Your task to perform on an android device: Search for macbook on walmart, select the first entry, and add it to the cart. Image 0: 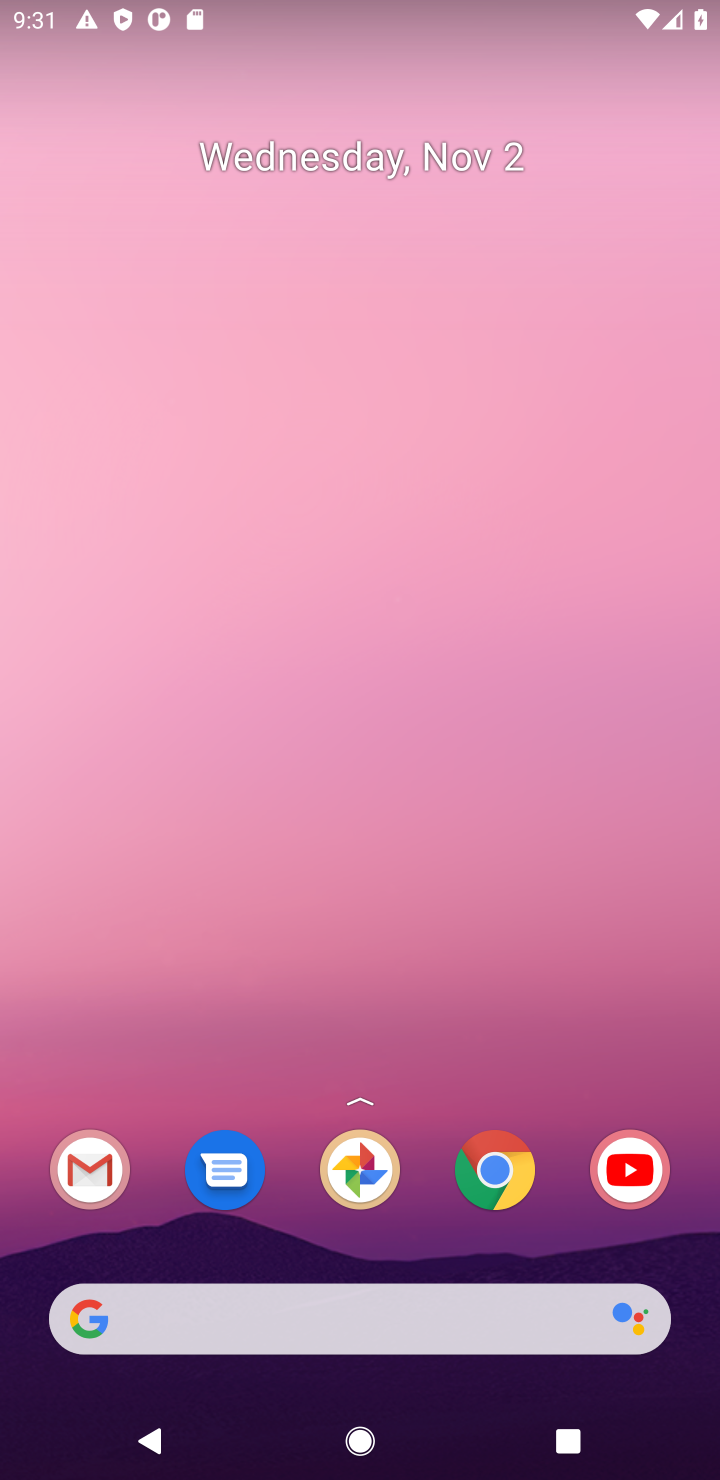
Step 0: click (511, 1170)
Your task to perform on an android device: Search for macbook on walmart, select the first entry, and add it to the cart. Image 1: 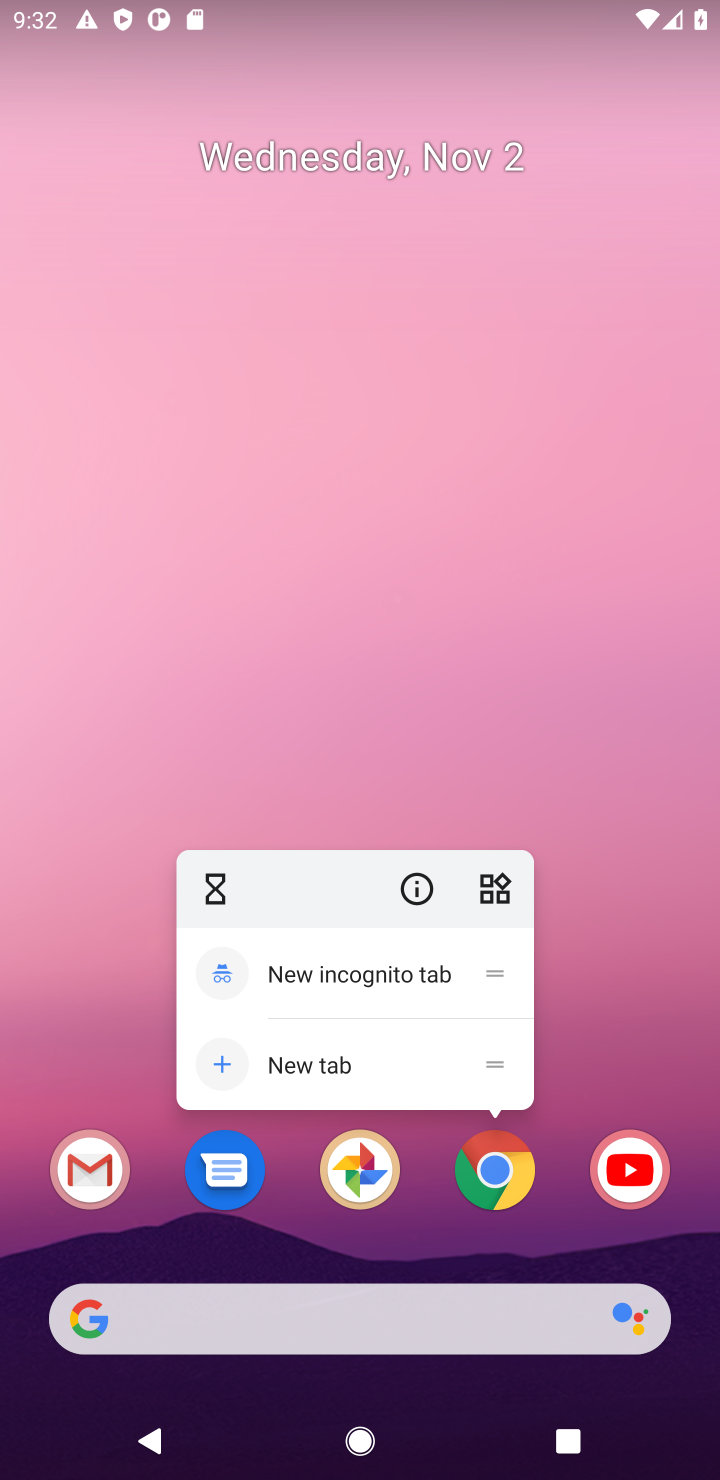
Step 1: click (485, 1189)
Your task to perform on an android device: Search for macbook on walmart, select the first entry, and add it to the cart. Image 2: 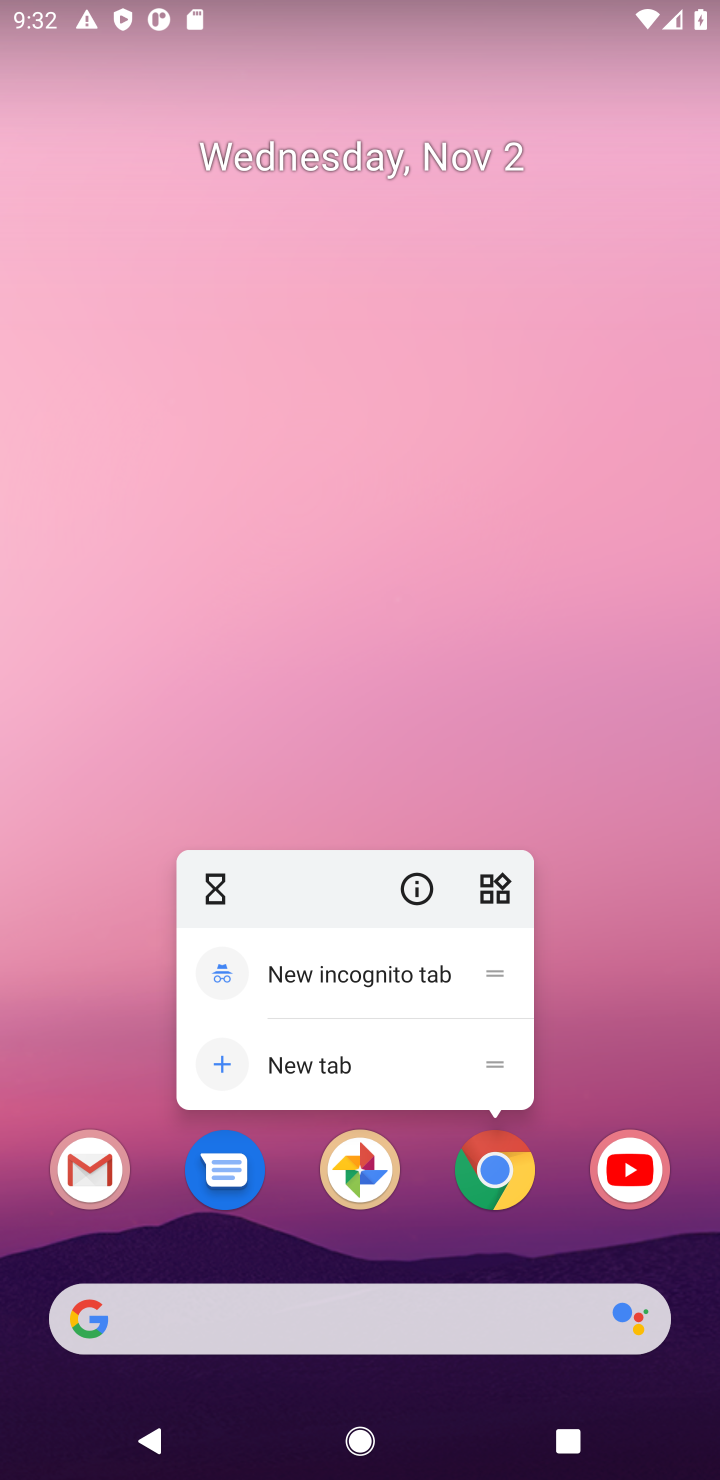
Step 2: click (499, 1180)
Your task to perform on an android device: Search for macbook on walmart, select the first entry, and add it to the cart. Image 3: 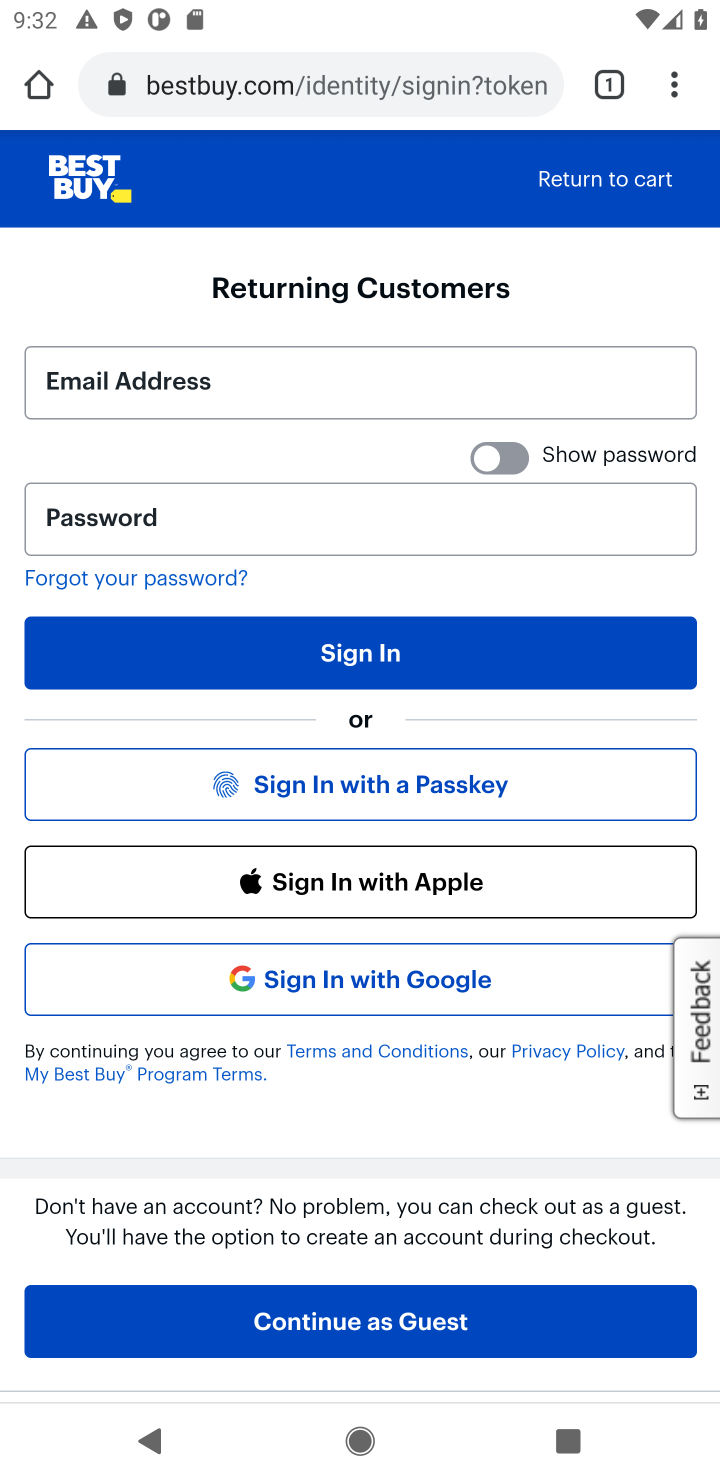
Step 3: click (417, 90)
Your task to perform on an android device: Search for macbook on walmart, select the first entry, and add it to the cart. Image 4: 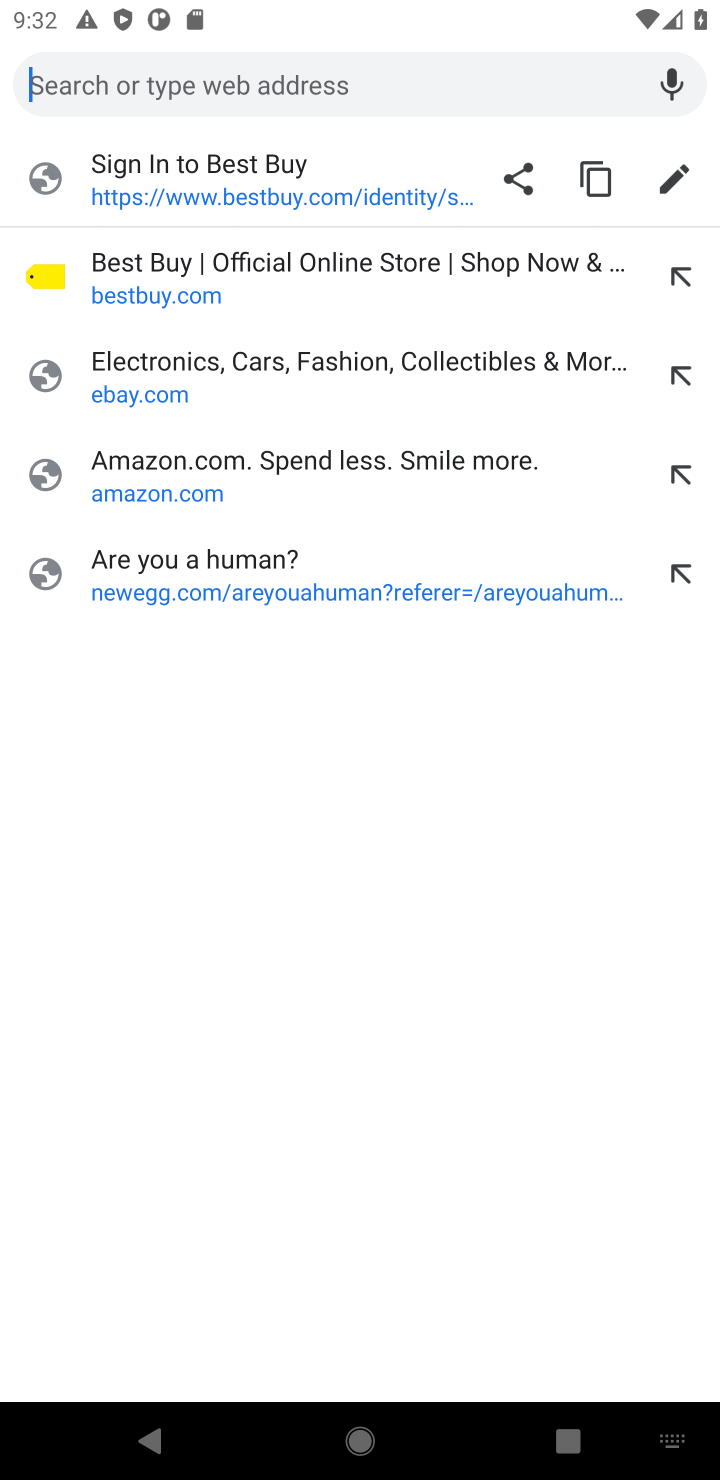
Step 4: type "walmart"
Your task to perform on an android device: Search for macbook on walmart, select the first entry, and add it to the cart. Image 5: 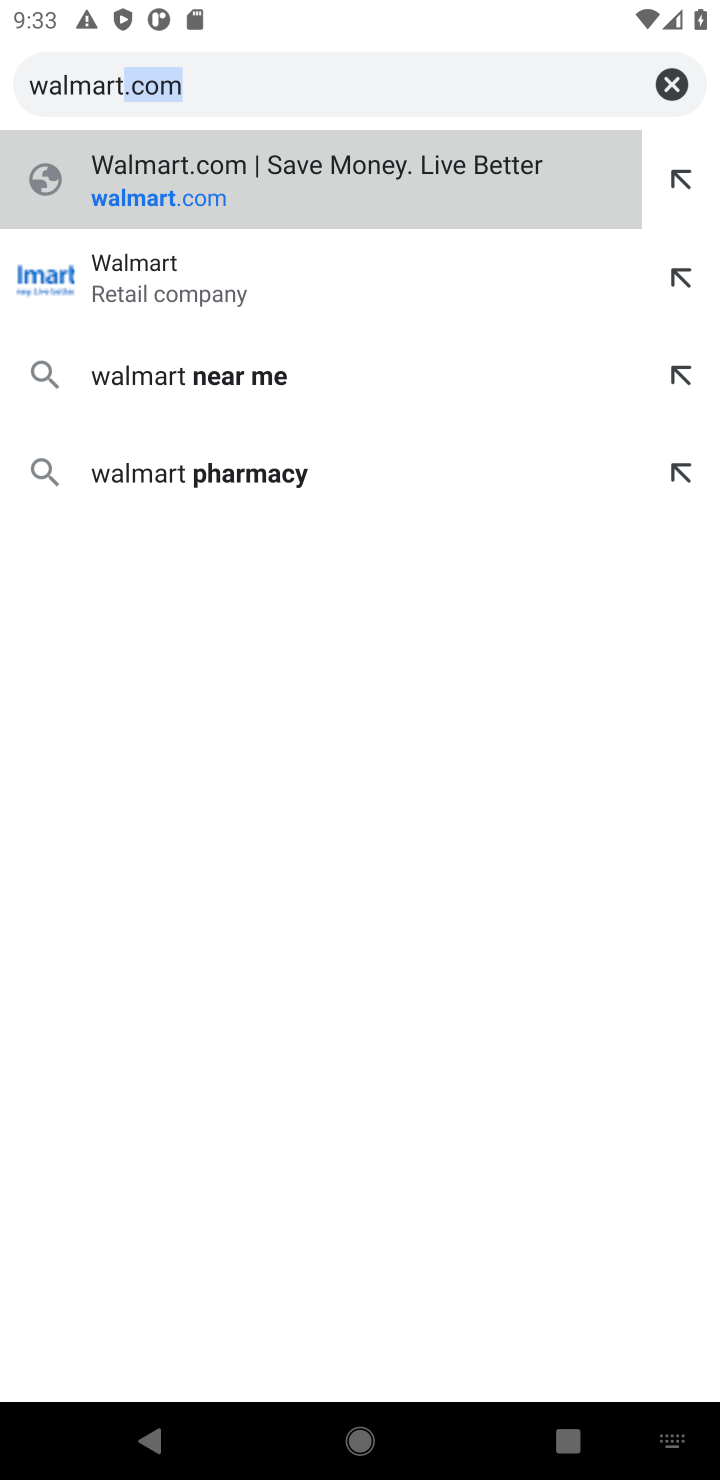
Step 5: press enter
Your task to perform on an android device: Search for macbook on walmart, select the first entry, and add it to the cart. Image 6: 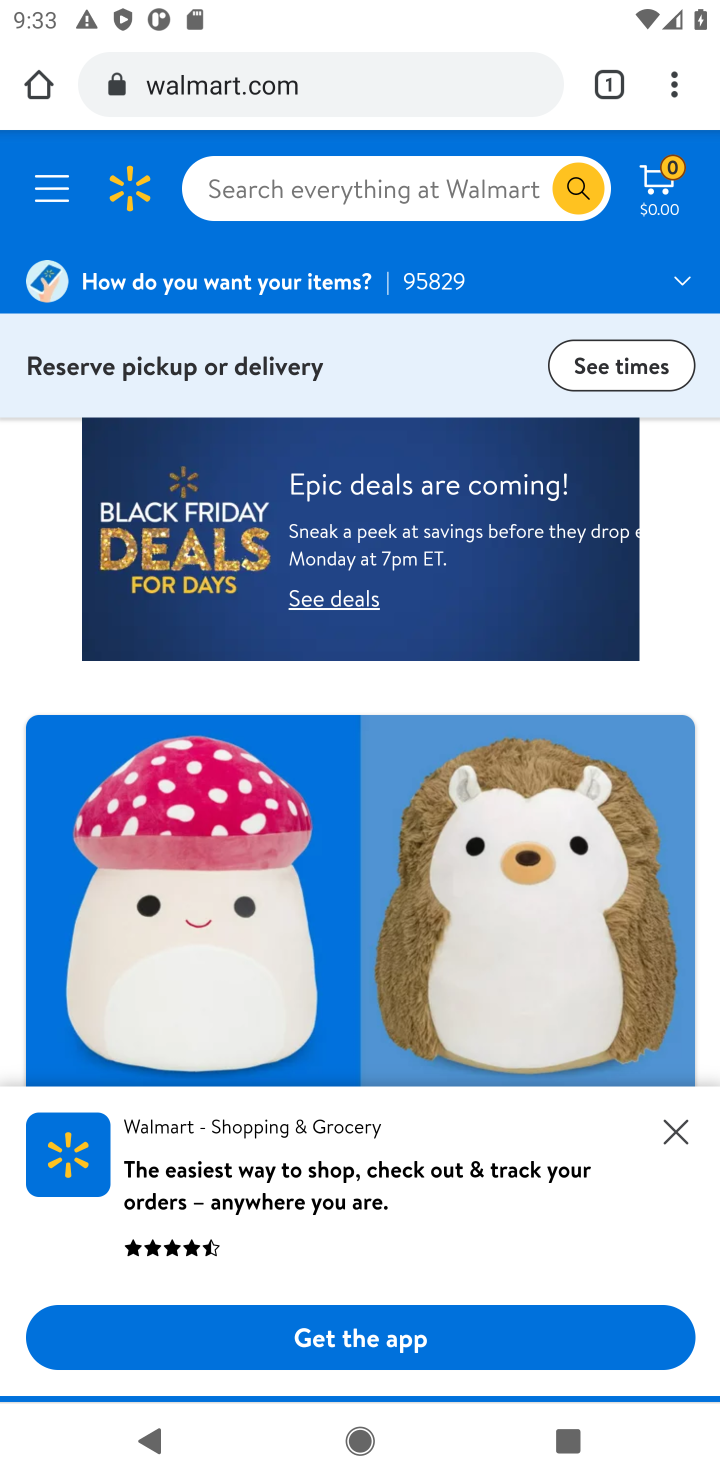
Step 6: click (342, 170)
Your task to perform on an android device: Search for macbook on walmart, select the first entry, and add it to the cart. Image 7: 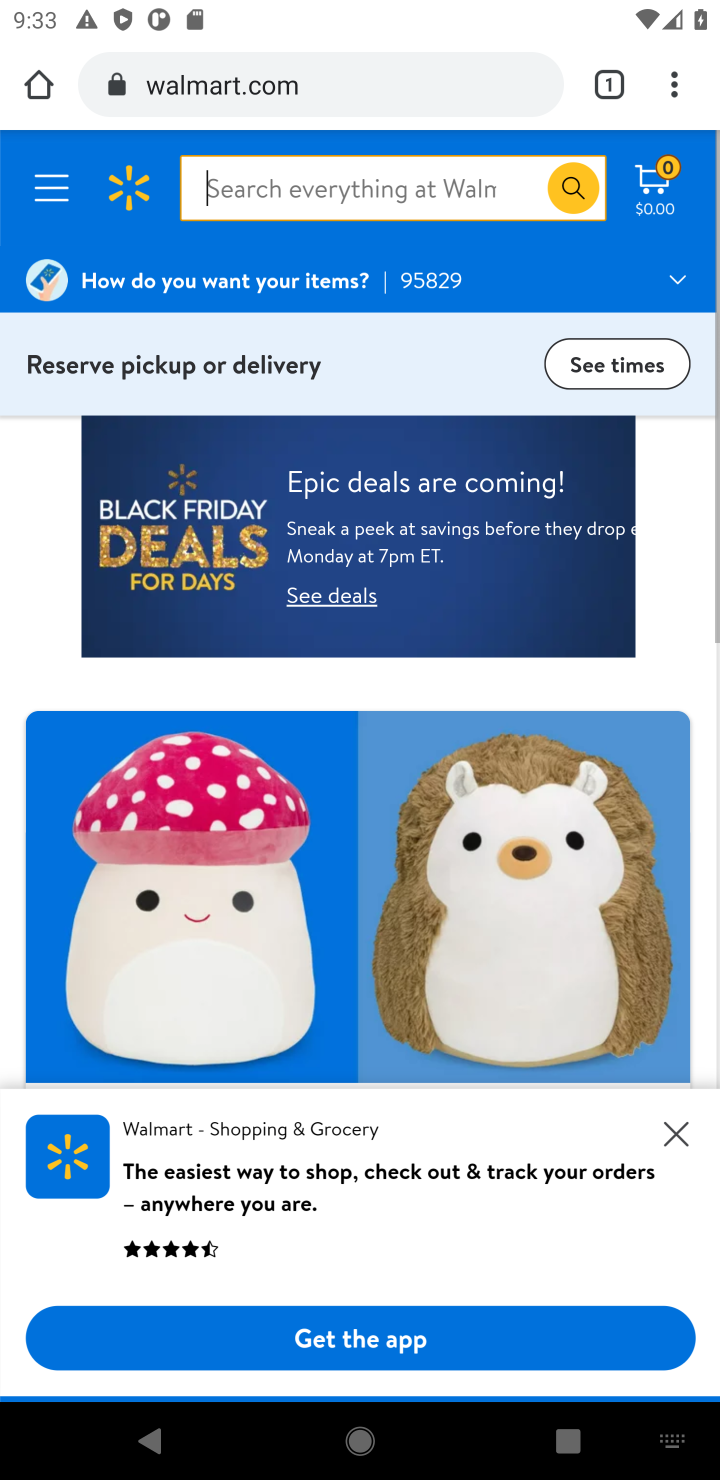
Step 7: click (386, 190)
Your task to perform on an android device: Search for macbook on walmart, select the first entry, and add it to the cart. Image 8: 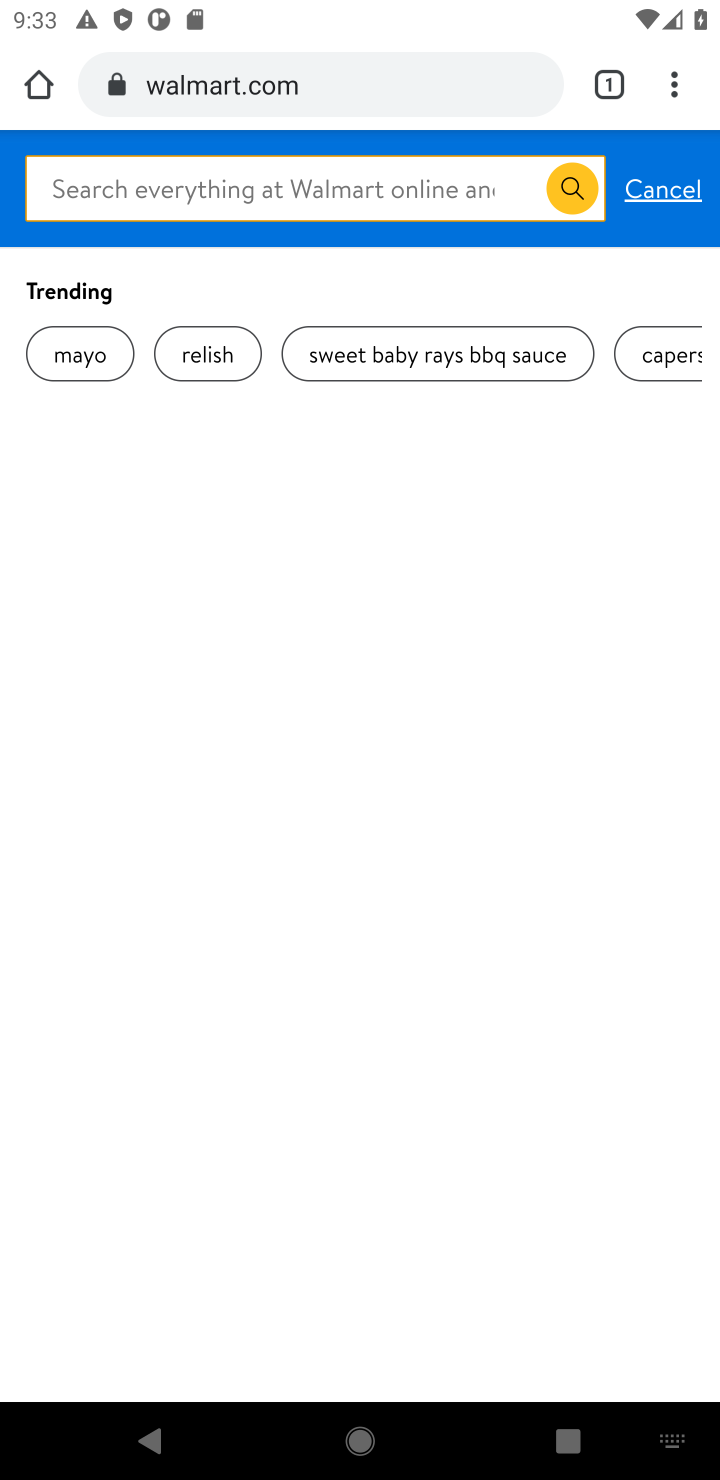
Step 8: type "macbook"
Your task to perform on an android device: Search for macbook on walmart, select the first entry, and add it to the cart. Image 9: 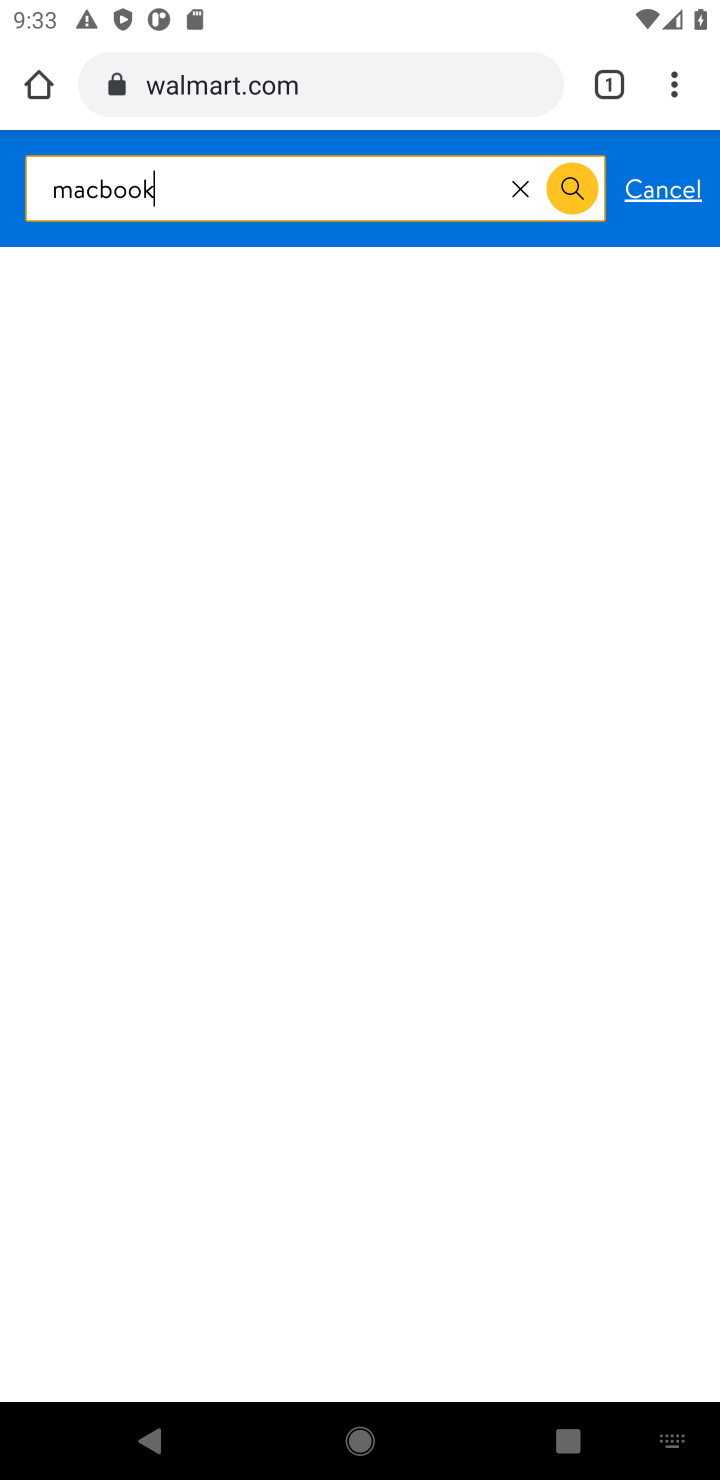
Step 9: type ""
Your task to perform on an android device: Search for macbook on walmart, select the first entry, and add it to the cart. Image 10: 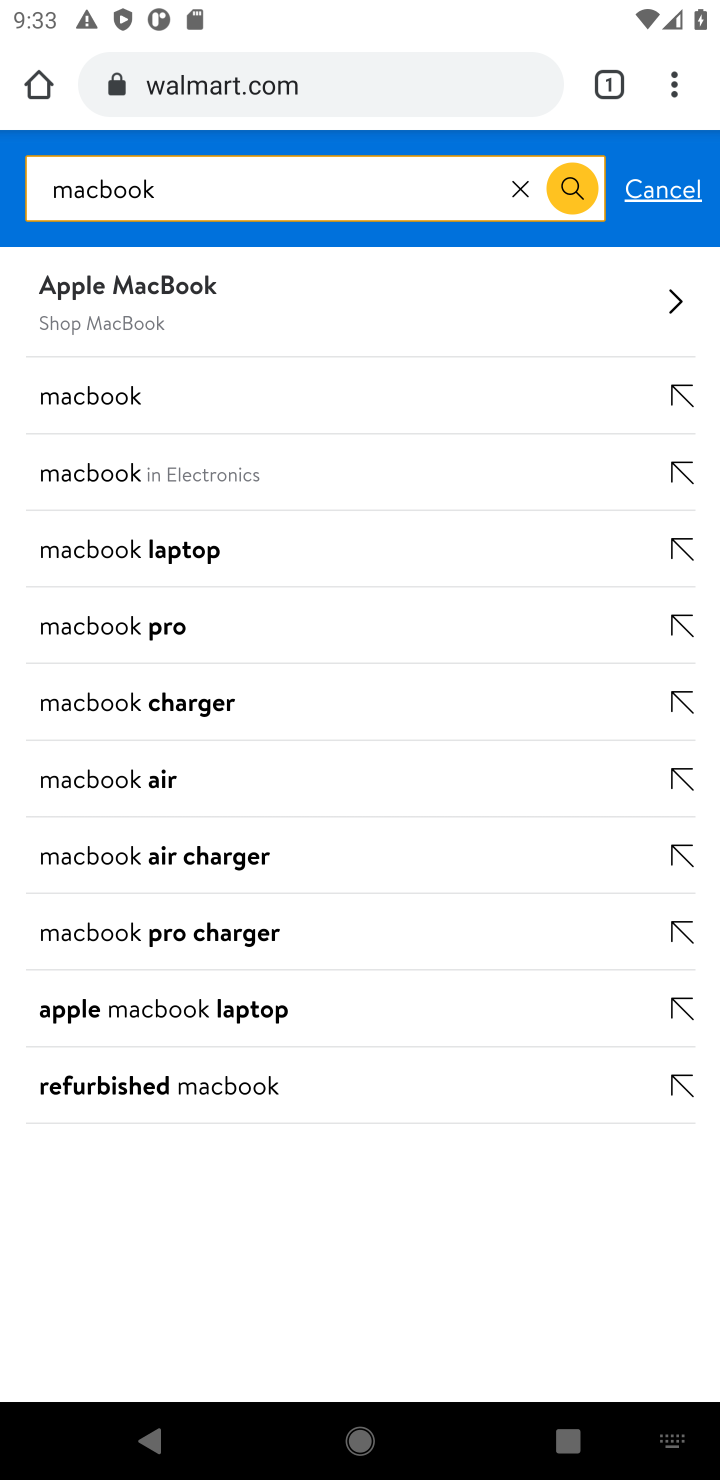
Step 10: press enter
Your task to perform on an android device: Search for macbook on walmart, select the first entry, and add it to the cart. Image 11: 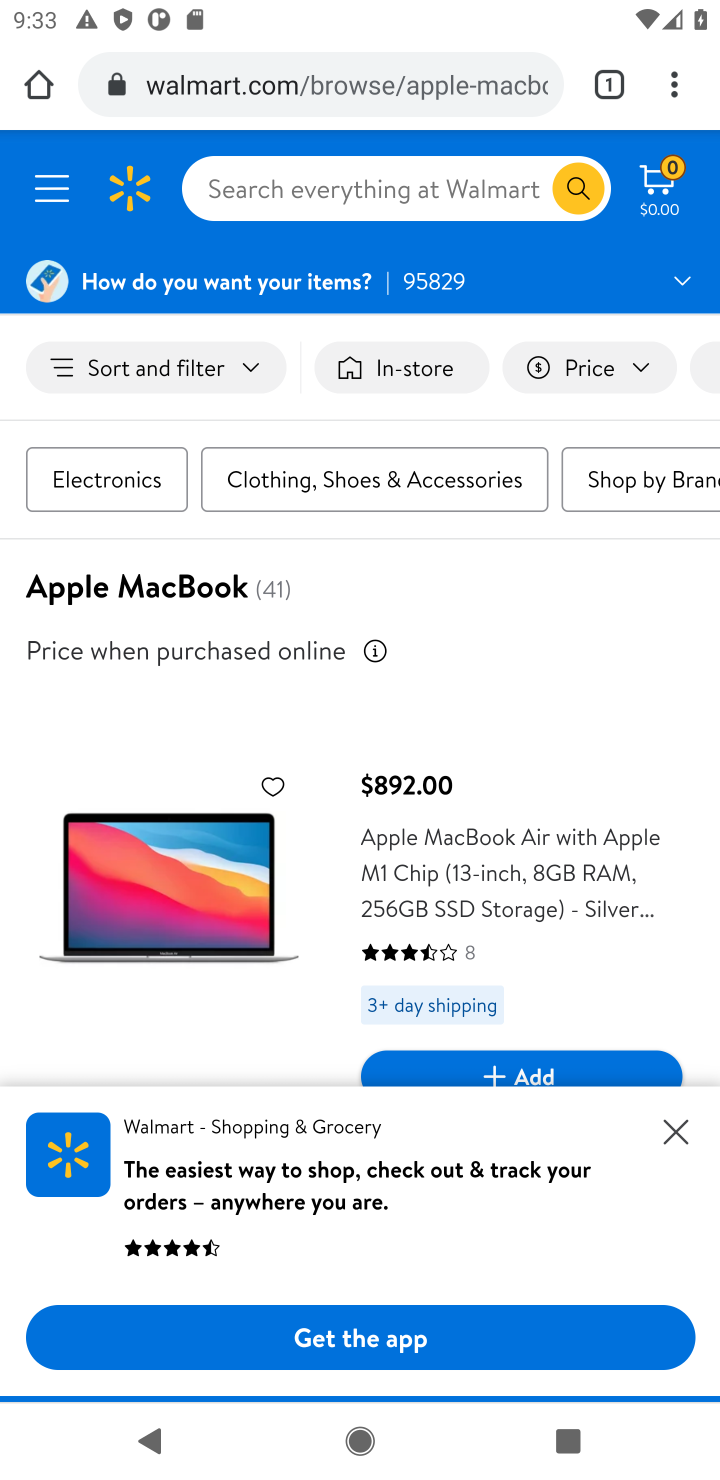
Step 11: click (676, 1135)
Your task to perform on an android device: Search for macbook on walmart, select the first entry, and add it to the cart. Image 12: 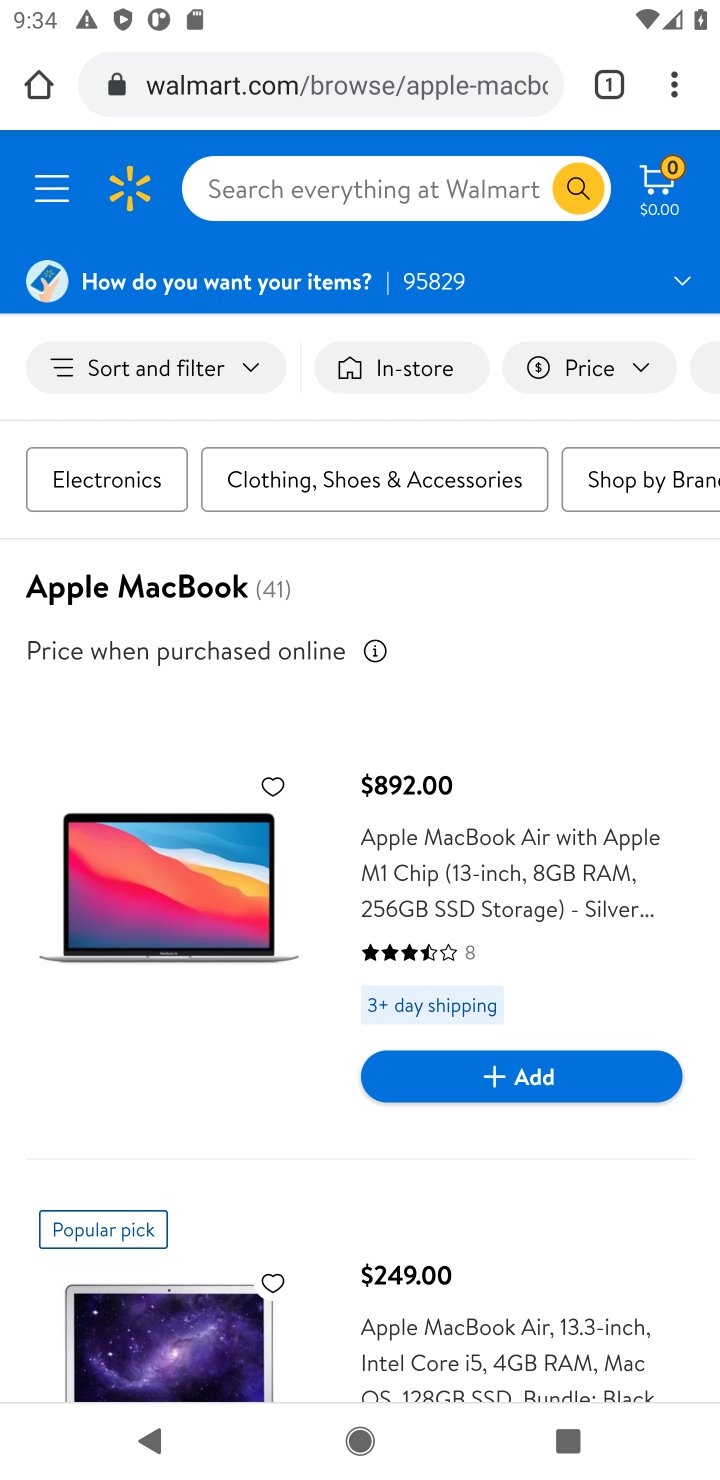
Step 12: click (459, 868)
Your task to perform on an android device: Search for macbook on walmart, select the first entry, and add it to the cart. Image 13: 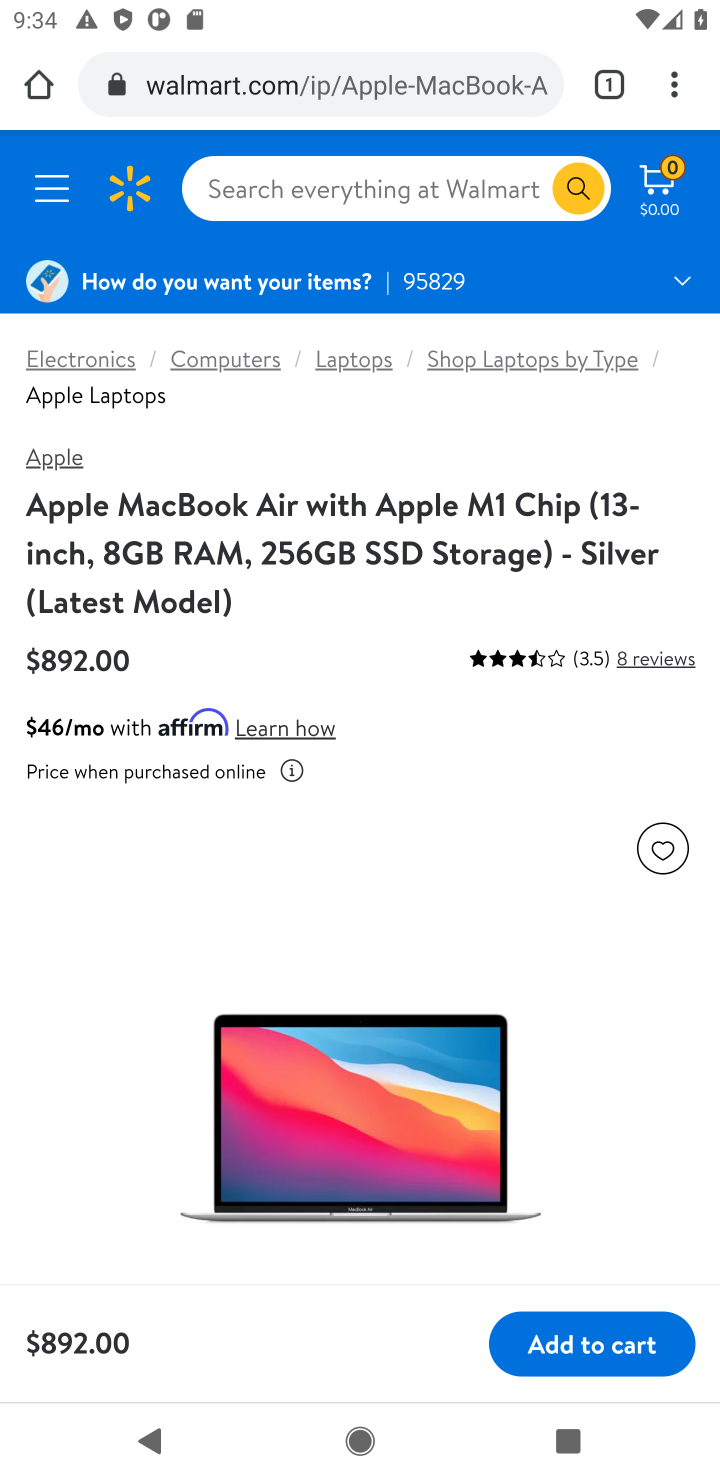
Step 13: drag from (431, 963) to (455, 530)
Your task to perform on an android device: Search for macbook on walmart, select the first entry, and add it to the cart. Image 14: 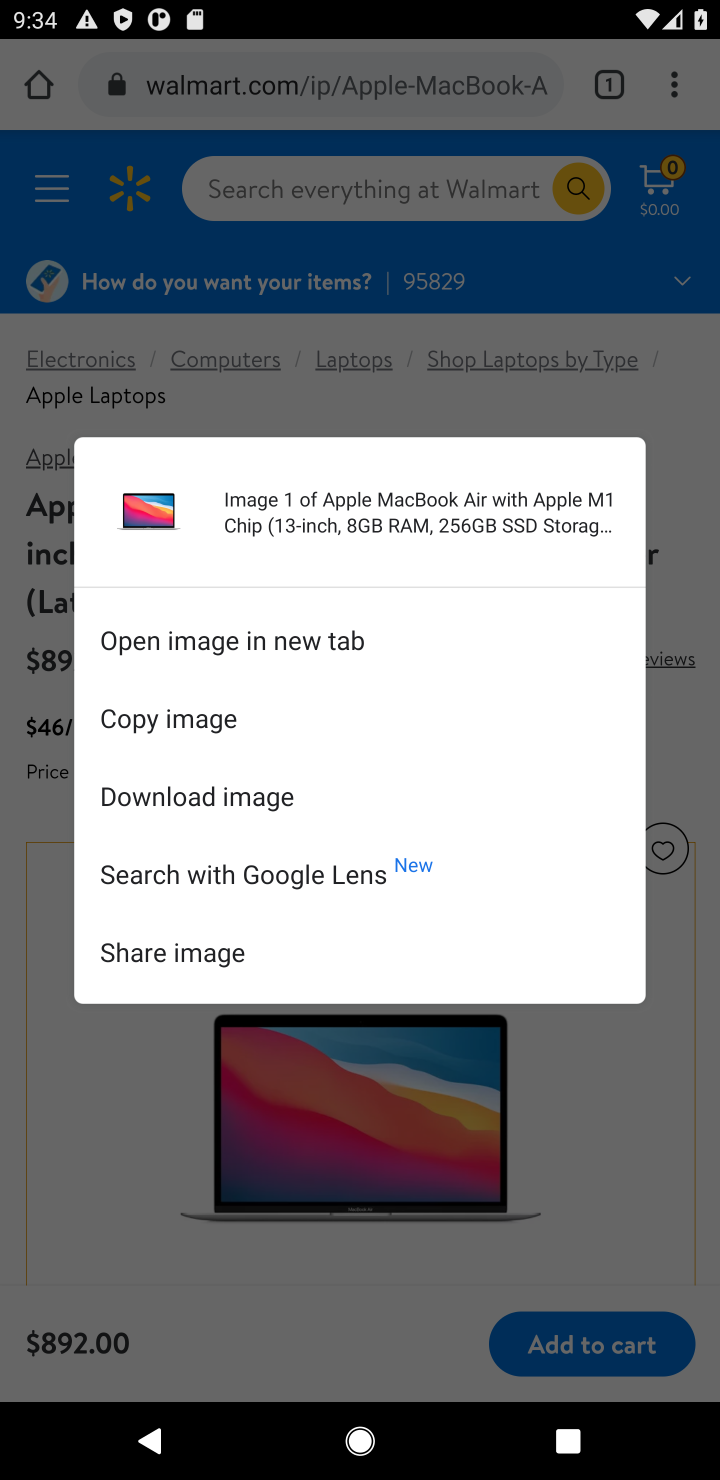
Step 14: click (483, 1107)
Your task to perform on an android device: Search for macbook on walmart, select the first entry, and add it to the cart. Image 15: 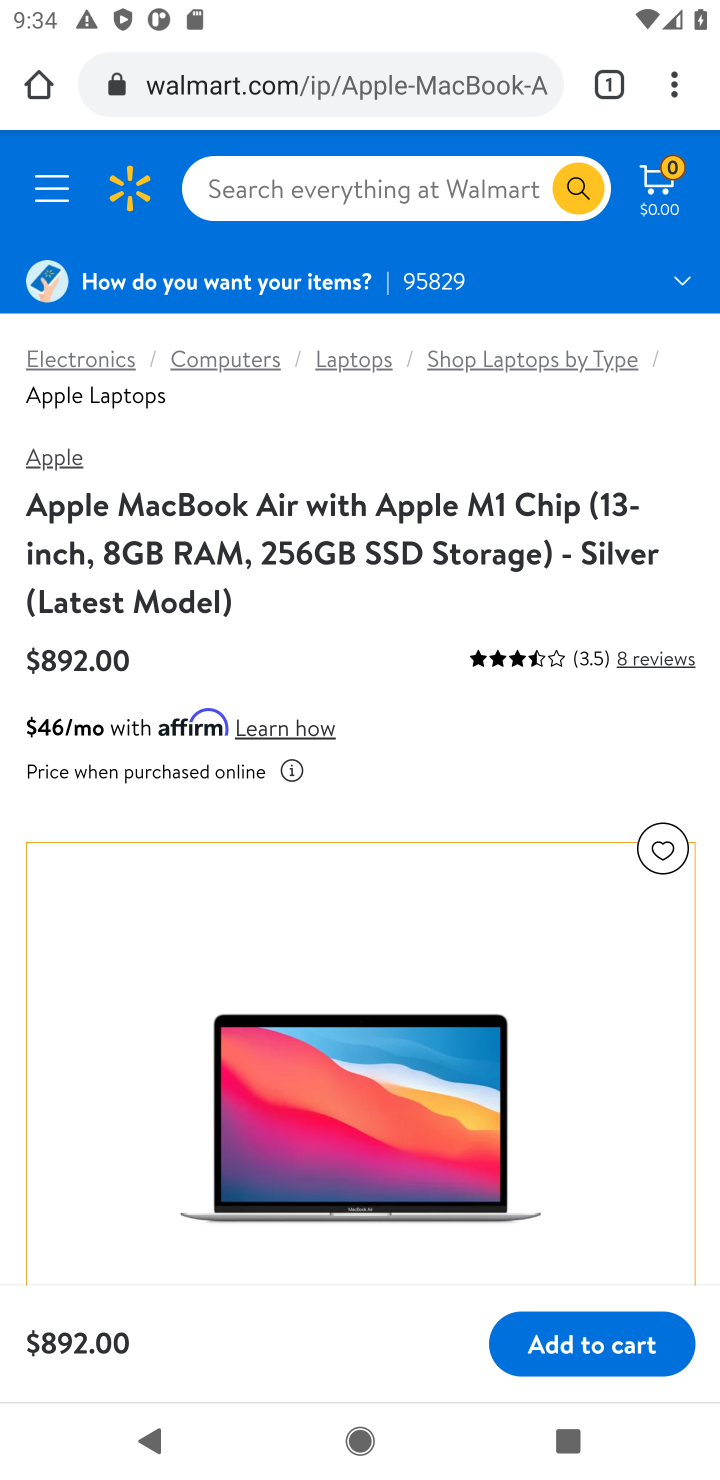
Step 15: click (575, 1355)
Your task to perform on an android device: Search for macbook on walmart, select the first entry, and add it to the cart. Image 16: 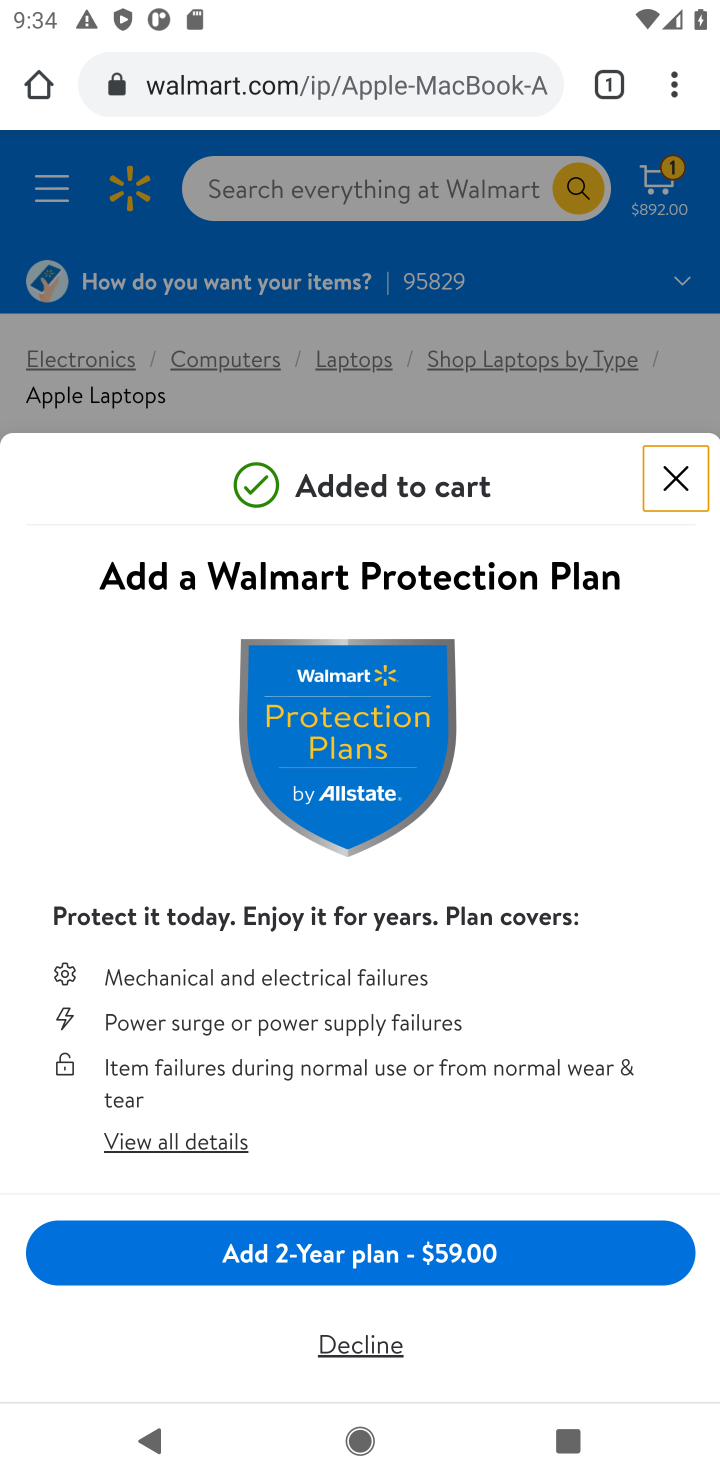
Step 16: click (695, 491)
Your task to perform on an android device: Search for macbook on walmart, select the first entry, and add it to the cart. Image 17: 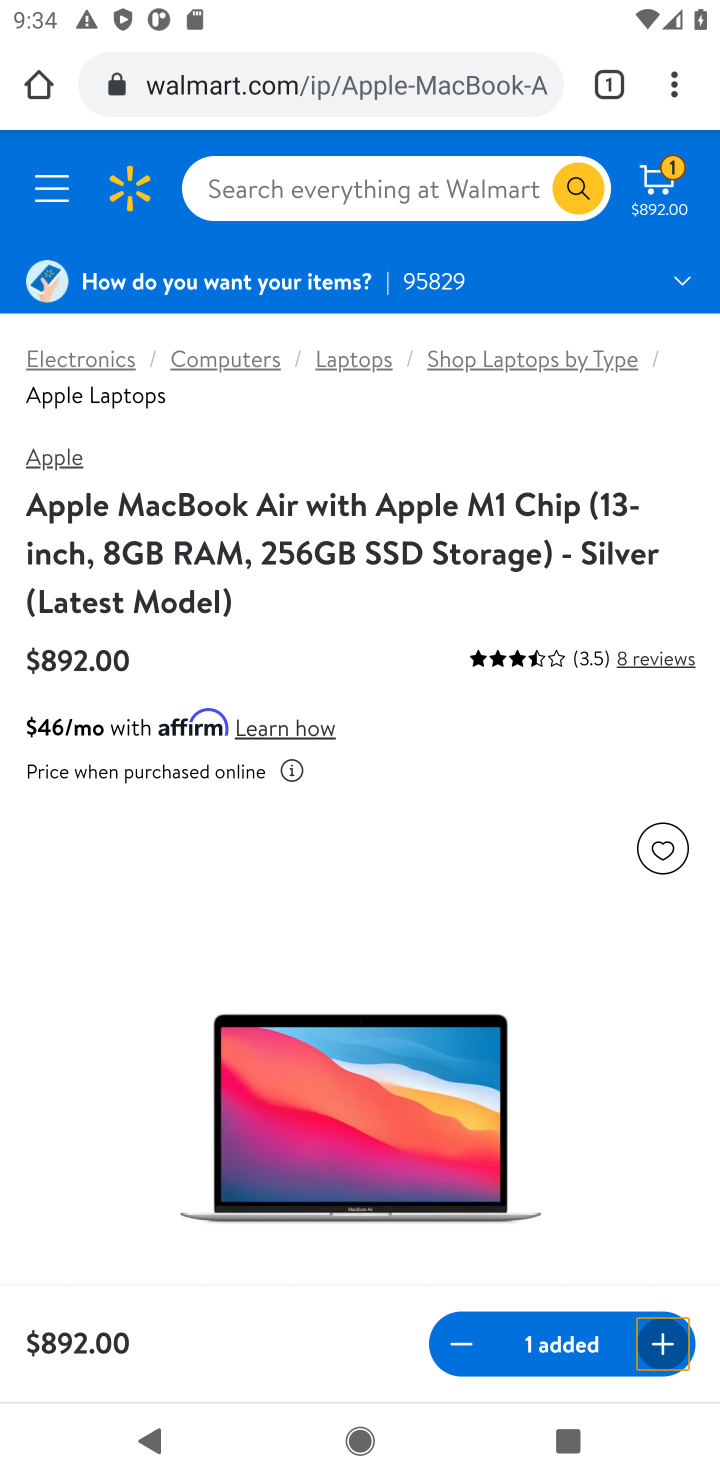
Step 17: click (666, 182)
Your task to perform on an android device: Search for macbook on walmart, select the first entry, and add it to the cart. Image 18: 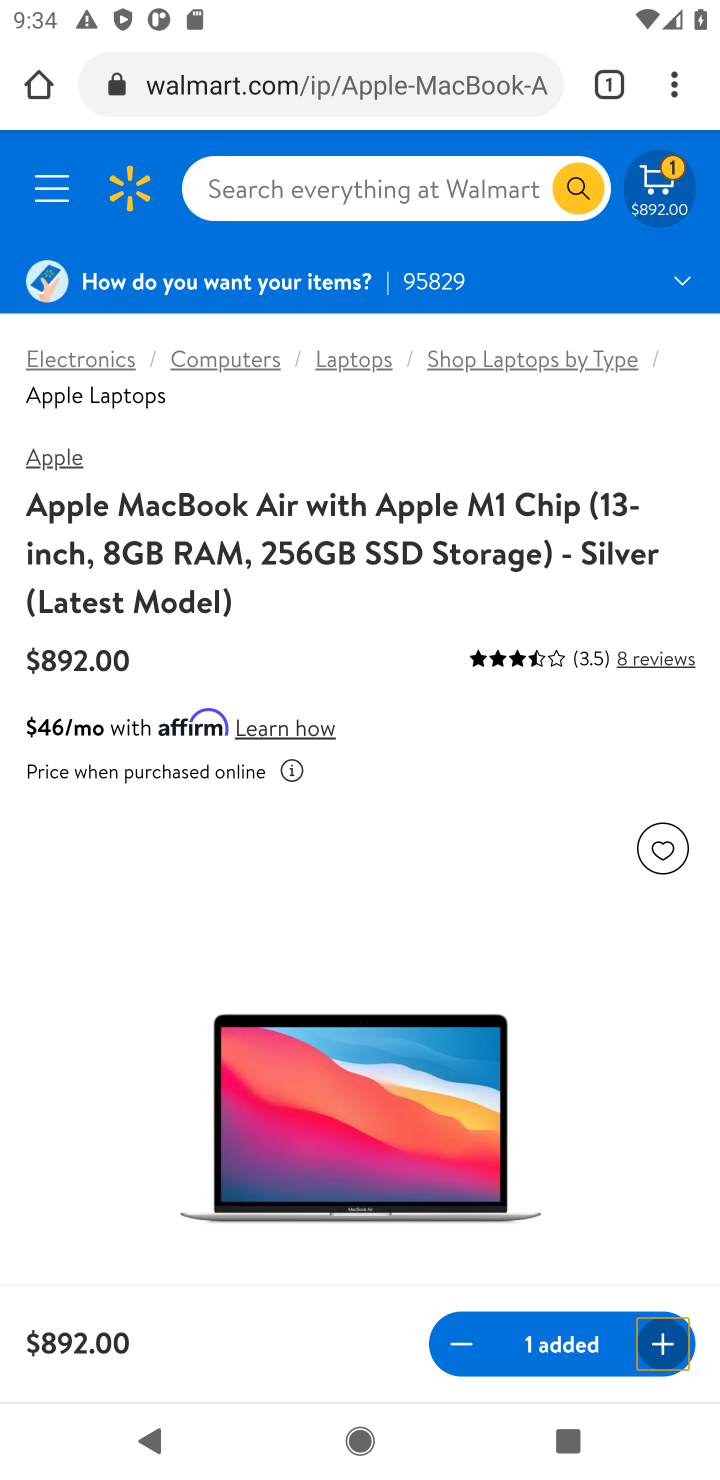
Step 18: task complete